Your task to perform on an android device: Is it going to rain this weekend? Image 0: 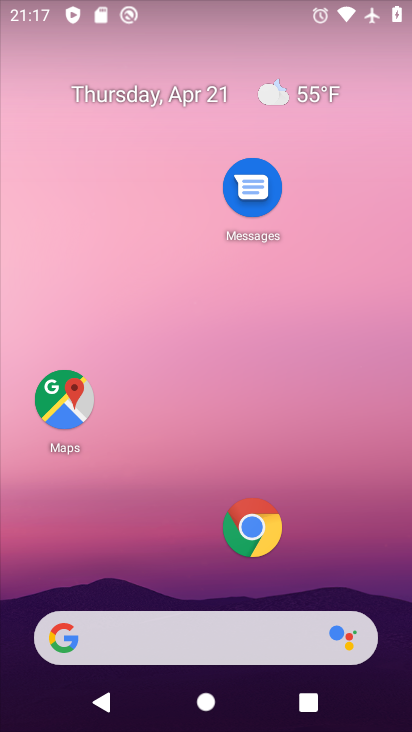
Step 0: click (316, 90)
Your task to perform on an android device: Is it going to rain this weekend? Image 1: 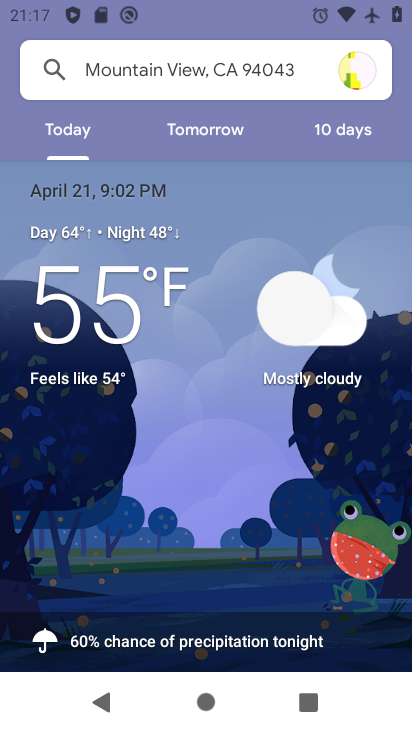
Step 1: click (338, 131)
Your task to perform on an android device: Is it going to rain this weekend? Image 2: 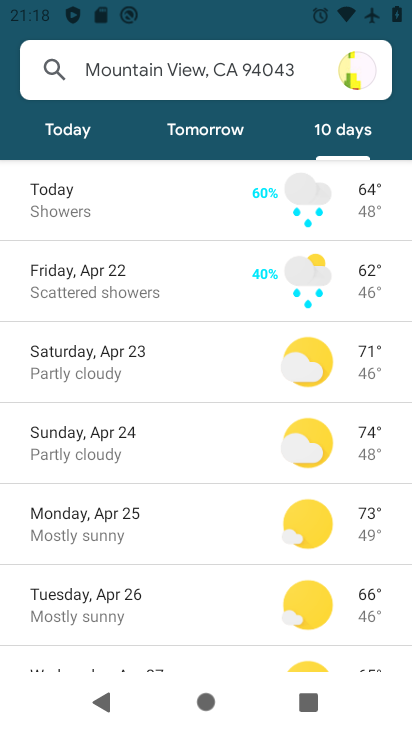
Step 2: click (161, 361)
Your task to perform on an android device: Is it going to rain this weekend? Image 3: 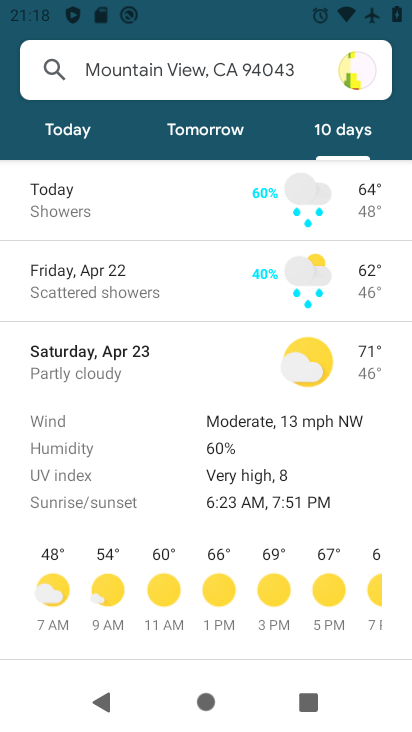
Step 3: task complete